Your task to perform on an android device: turn on bluetooth scan Image 0: 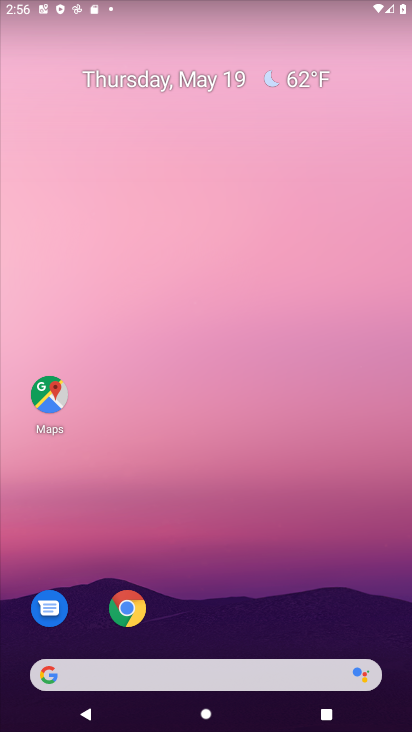
Step 0: drag from (280, 645) to (132, 2)
Your task to perform on an android device: turn on bluetooth scan Image 1: 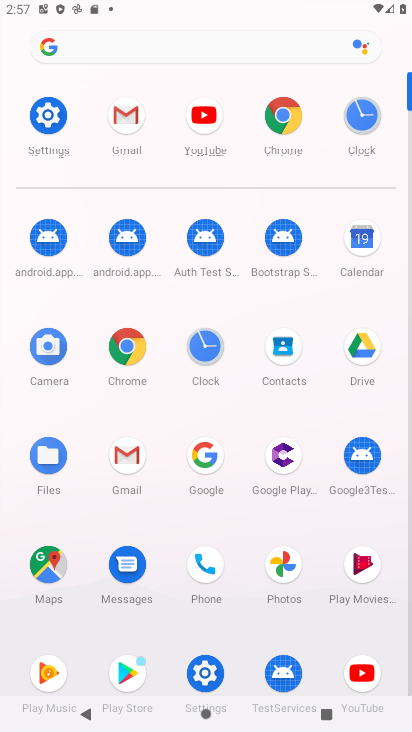
Step 1: click (35, 140)
Your task to perform on an android device: turn on bluetooth scan Image 2: 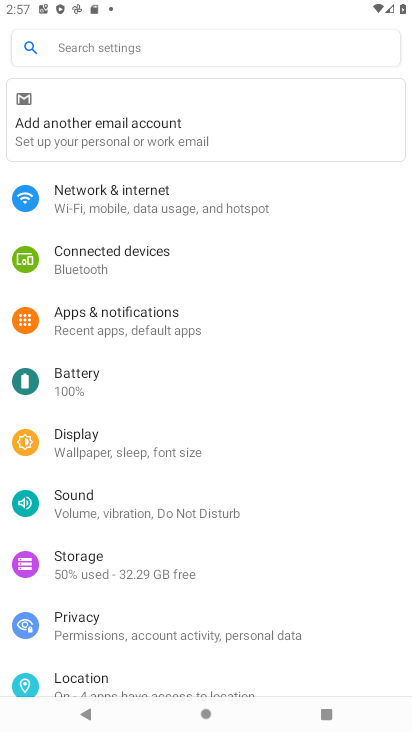
Step 2: click (155, 691)
Your task to perform on an android device: turn on bluetooth scan Image 3: 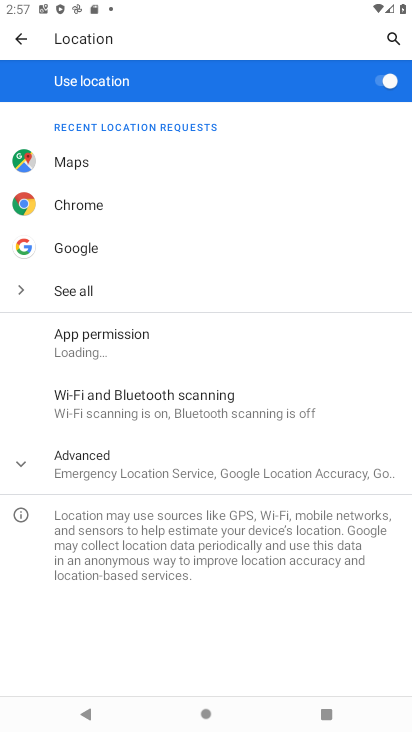
Step 3: click (217, 457)
Your task to perform on an android device: turn on bluetooth scan Image 4: 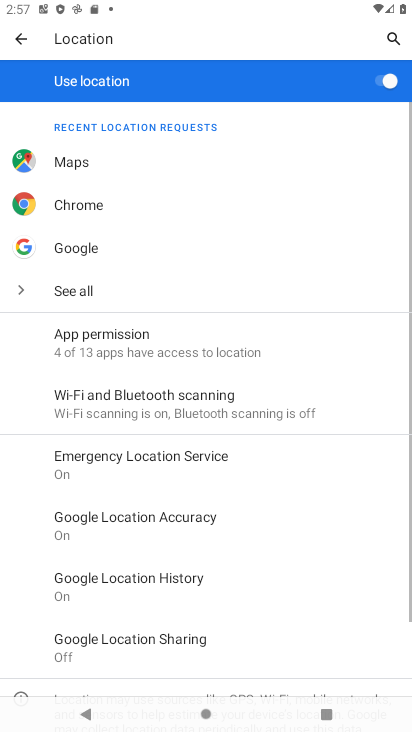
Step 4: click (232, 420)
Your task to perform on an android device: turn on bluetooth scan Image 5: 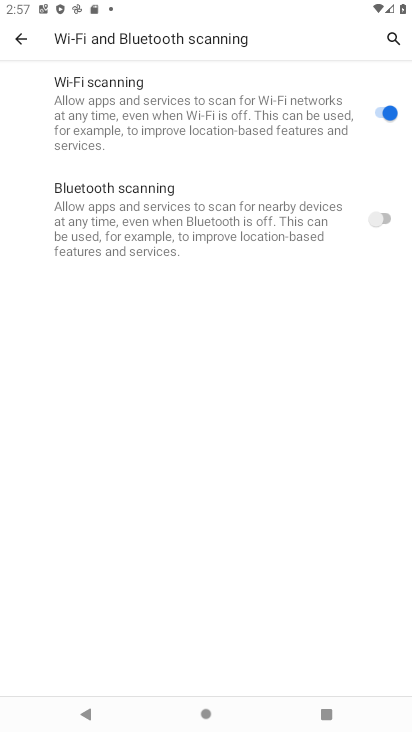
Step 5: click (318, 240)
Your task to perform on an android device: turn on bluetooth scan Image 6: 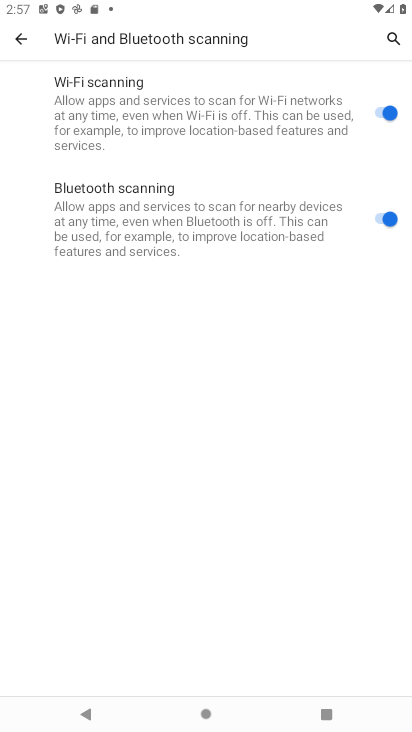
Step 6: task complete